Your task to perform on an android device: turn on translation in the chrome app Image 0: 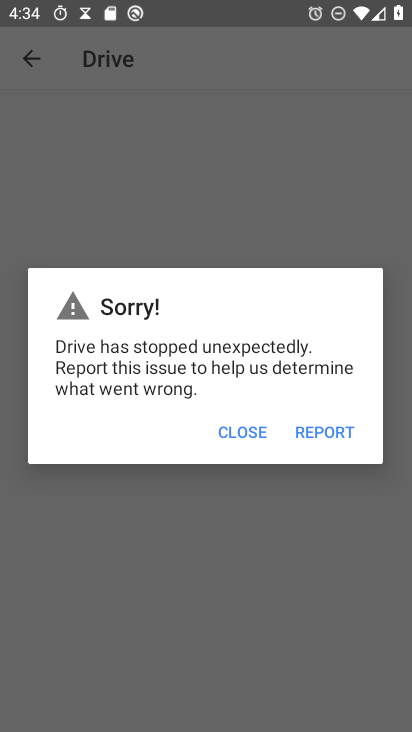
Step 0: press home button
Your task to perform on an android device: turn on translation in the chrome app Image 1: 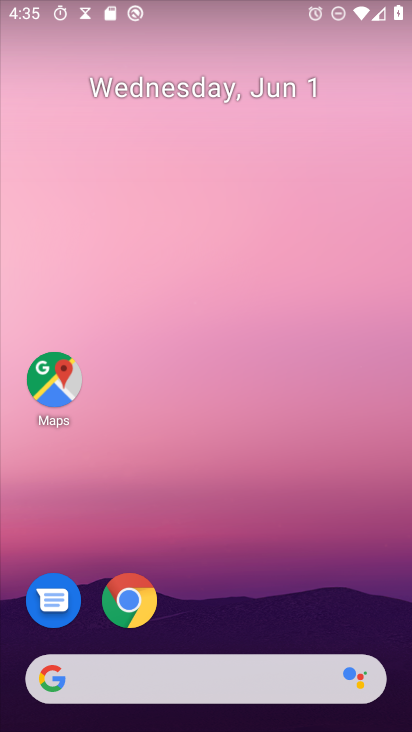
Step 1: drag from (209, 630) to (259, 207)
Your task to perform on an android device: turn on translation in the chrome app Image 2: 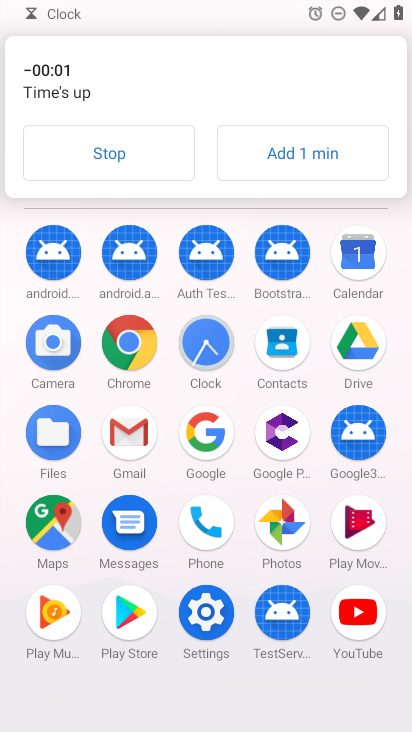
Step 2: click (117, 355)
Your task to perform on an android device: turn on translation in the chrome app Image 3: 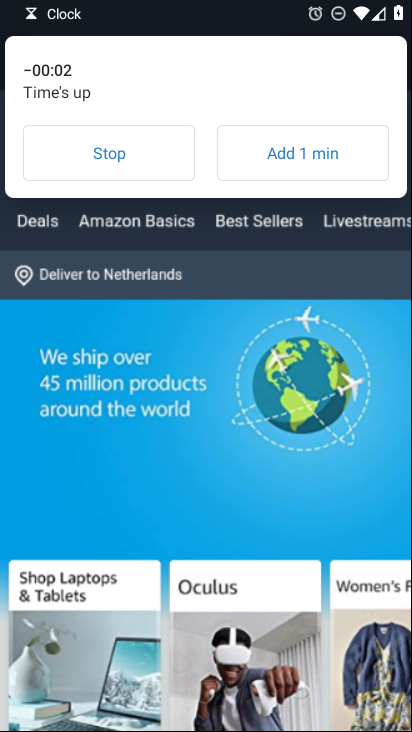
Step 3: click (105, 153)
Your task to perform on an android device: turn on translation in the chrome app Image 4: 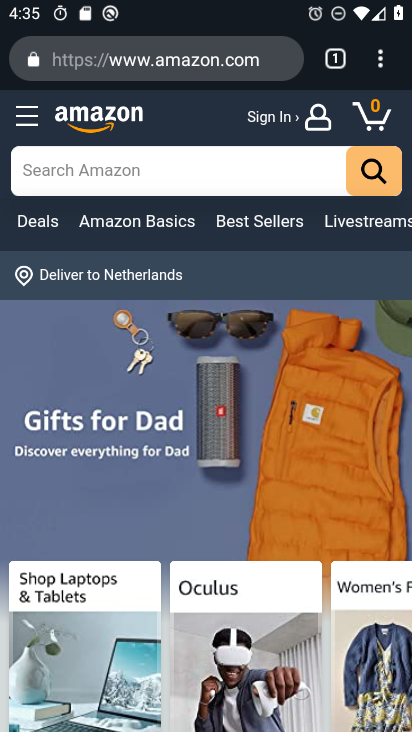
Step 4: click (377, 72)
Your task to perform on an android device: turn on translation in the chrome app Image 5: 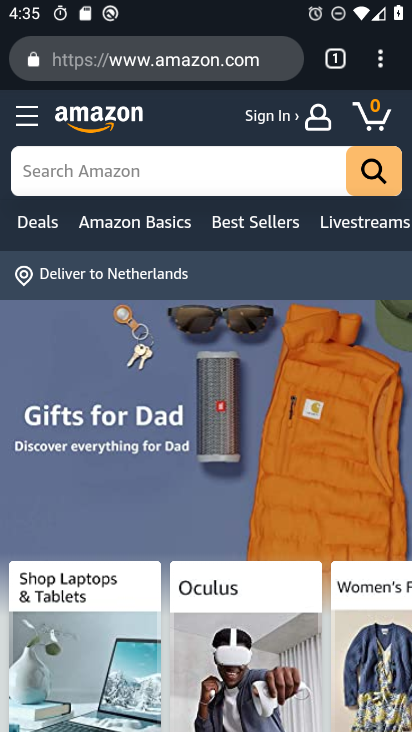
Step 5: click (386, 70)
Your task to perform on an android device: turn on translation in the chrome app Image 6: 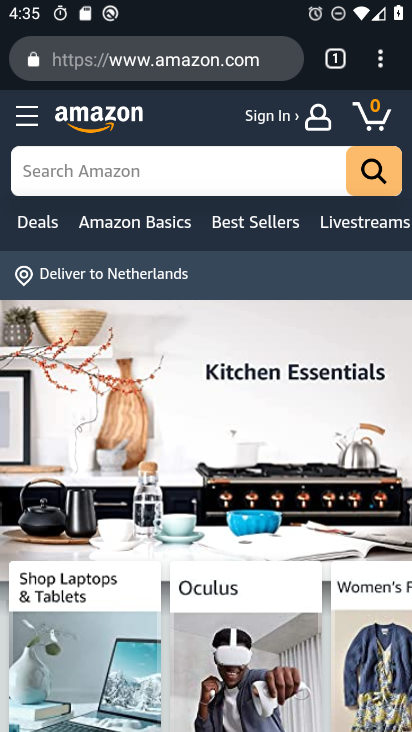
Step 6: click (387, 64)
Your task to perform on an android device: turn on translation in the chrome app Image 7: 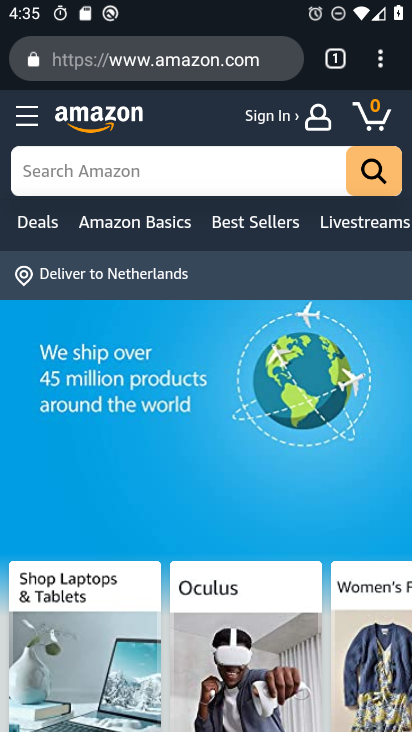
Step 7: click (380, 61)
Your task to perform on an android device: turn on translation in the chrome app Image 8: 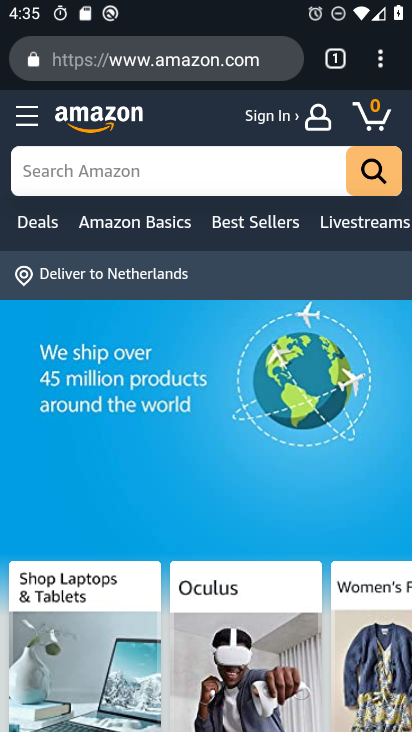
Step 8: click (373, 72)
Your task to perform on an android device: turn on translation in the chrome app Image 9: 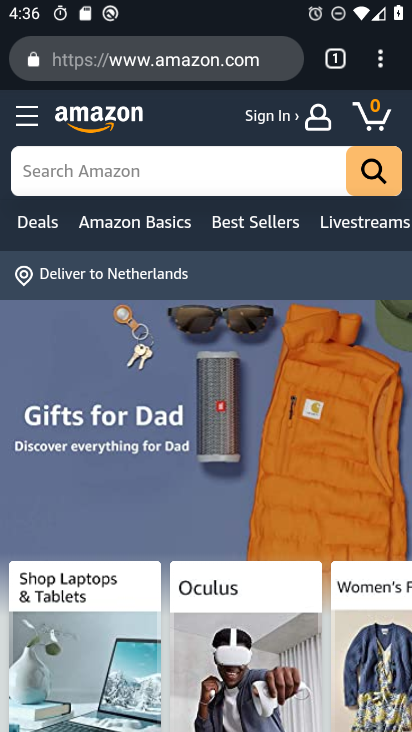
Step 9: click (380, 77)
Your task to perform on an android device: turn on translation in the chrome app Image 10: 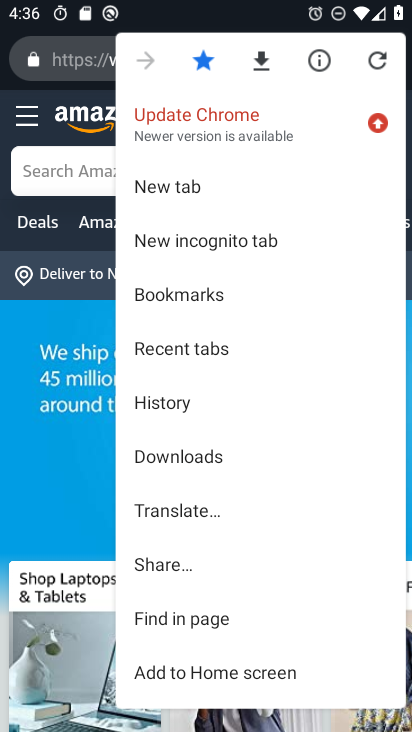
Step 10: drag from (181, 595) to (181, 347)
Your task to perform on an android device: turn on translation in the chrome app Image 11: 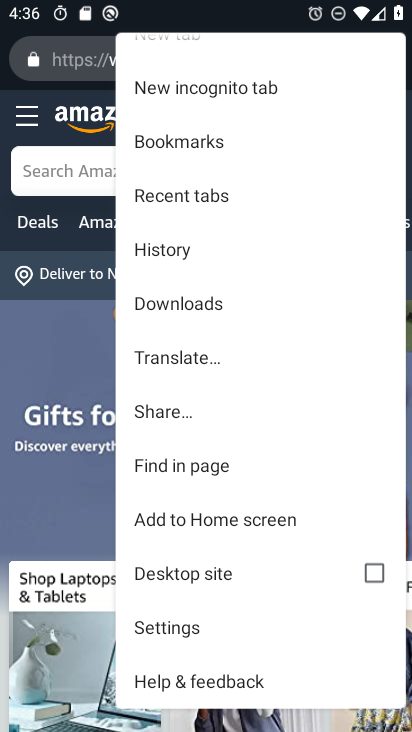
Step 11: click (178, 633)
Your task to perform on an android device: turn on translation in the chrome app Image 12: 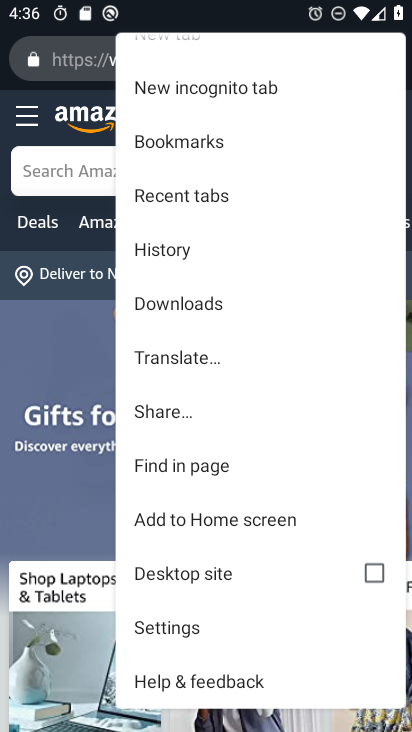
Step 12: click (173, 621)
Your task to perform on an android device: turn on translation in the chrome app Image 13: 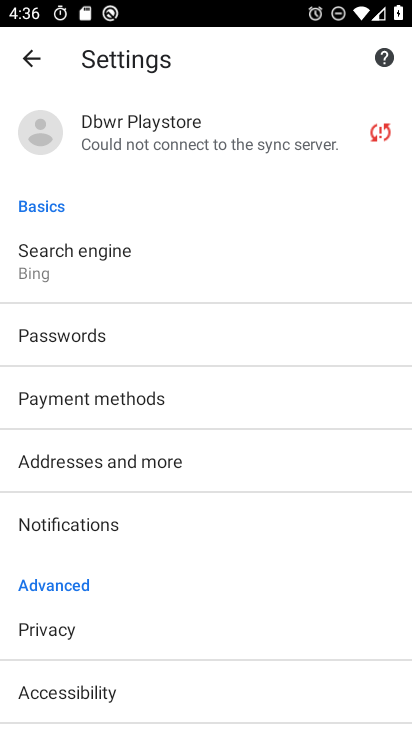
Step 13: drag from (174, 614) to (193, 440)
Your task to perform on an android device: turn on translation in the chrome app Image 14: 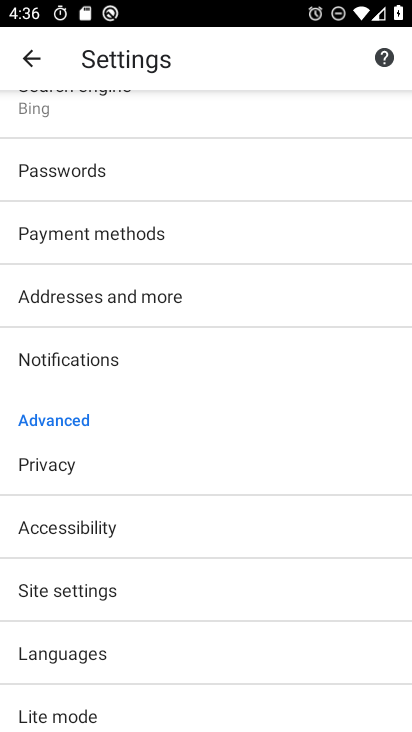
Step 14: click (79, 656)
Your task to perform on an android device: turn on translation in the chrome app Image 15: 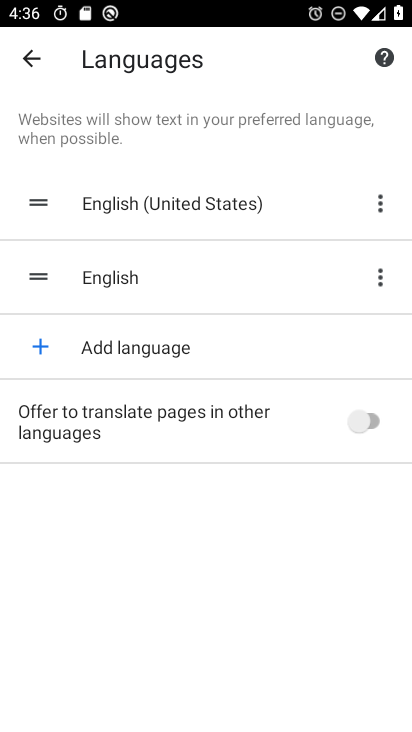
Step 15: click (375, 433)
Your task to perform on an android device: turn on translation in the chrome app Image 16: 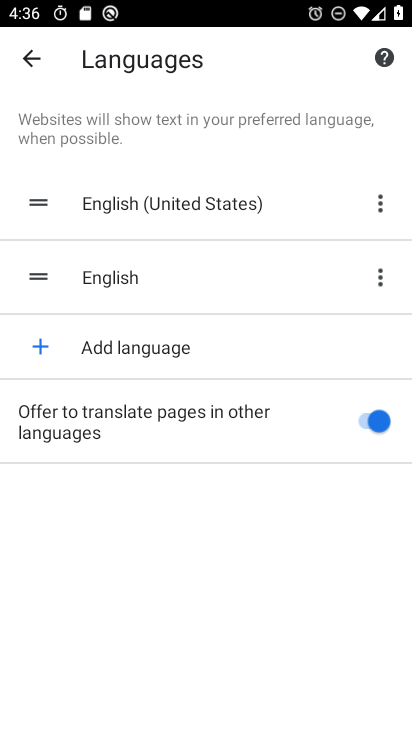
Step 16: task complete